Your task to perform on an android device: Open ESPN.com Image 0: 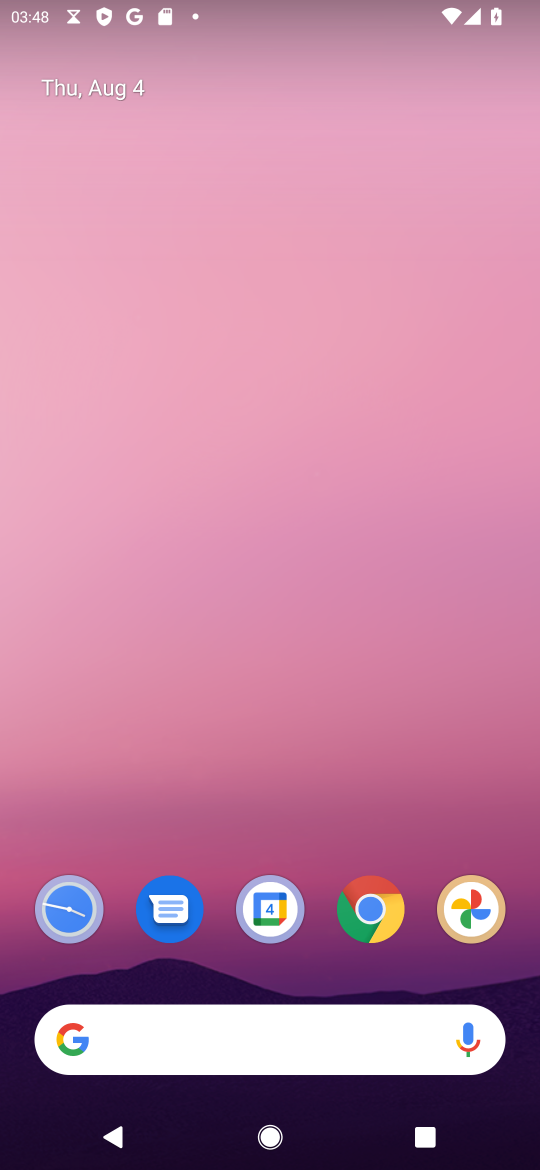
Step 0: click (374, 922)
Your task to perform on an android device: Open ESPN.com Image 1: 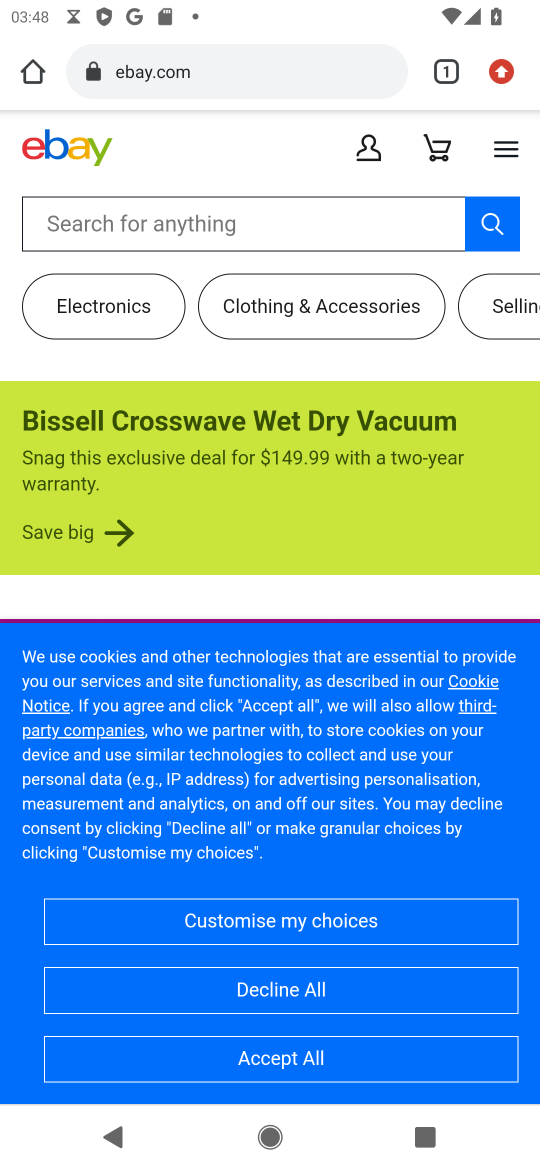
Step 1: drag from (493, 75) to (310, 219)
Your task to perform on an android device: Open ESPN.com Image 2: 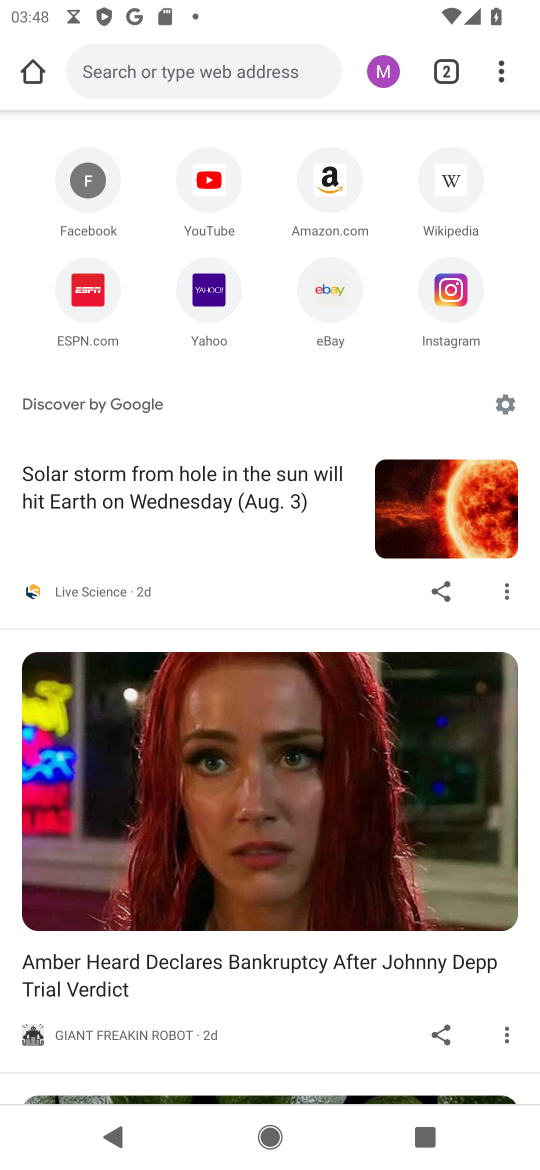
Step 2: click (93, 287)
Your task to perform on an android device: Open ESPN.com Image 3: 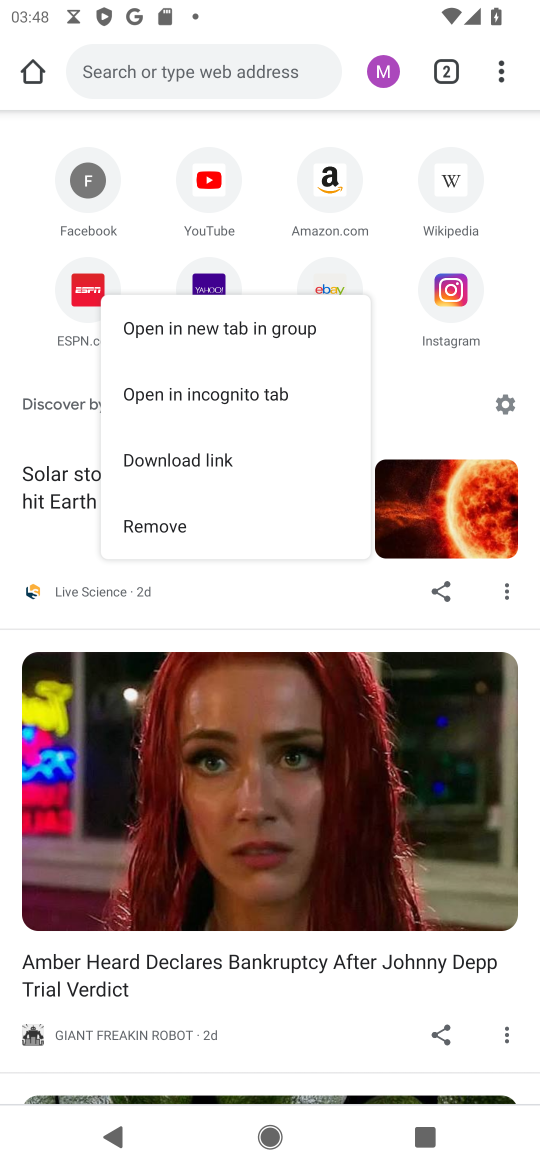
Step 3: click (81, 290)
Your task to perform on an android device: Open ESPN.com Image 4: 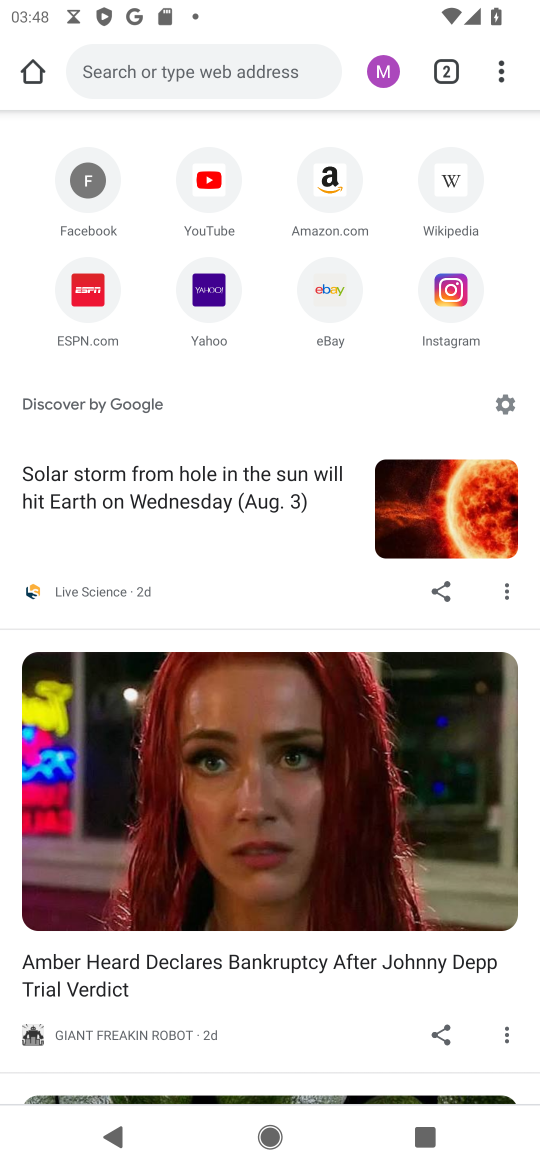
Step 4: click (97, 315)
Your task to perform on an android device: Open ESPN.com Image 5: 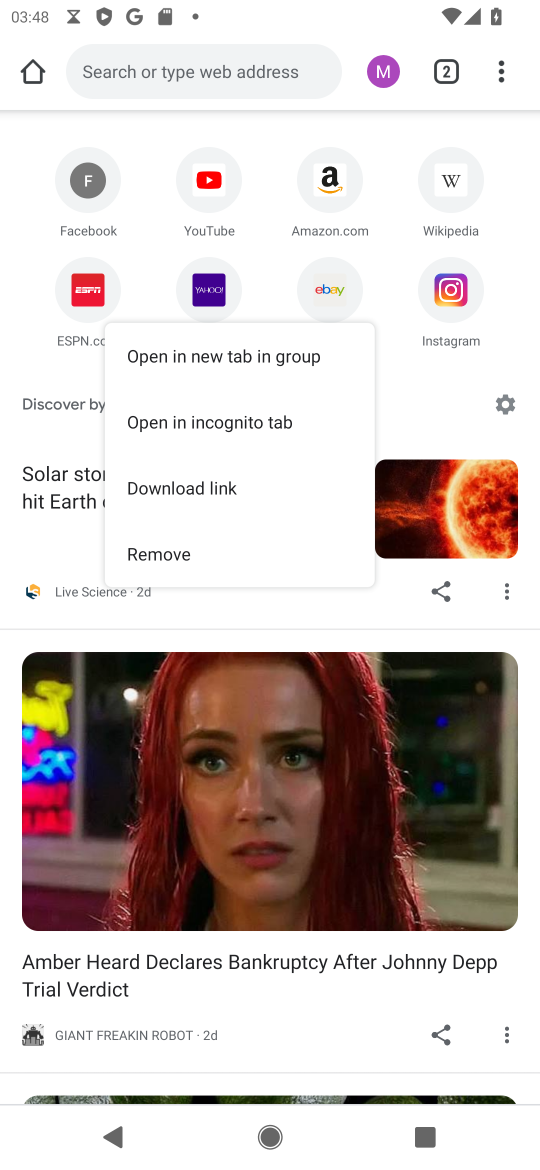
Step 5: click (82, 290)
Your task to perform on an android device: Open ESPN.com Image 6: 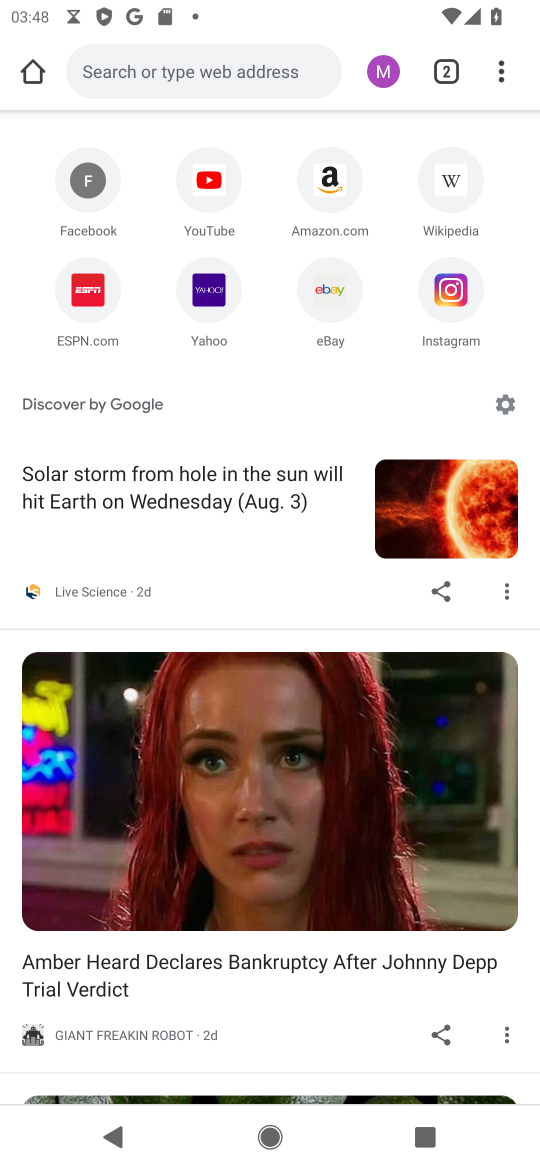
Step 6: click (95, 285)
Your task to perform on an android device: Open ESPN.com Image 7: 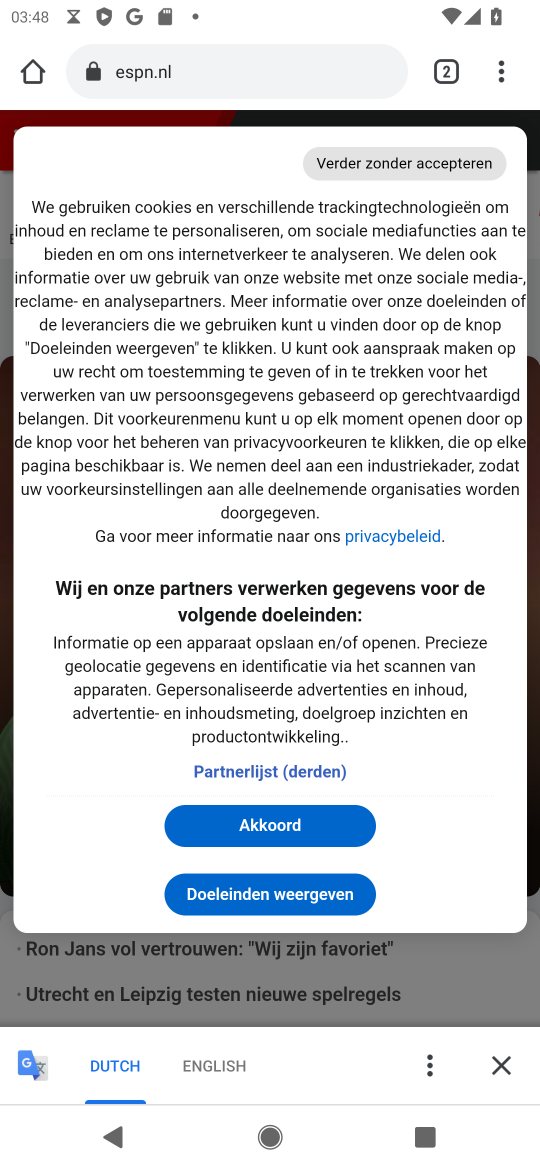
Step 7: click (187, 1065)
Your task to perform on an android device: Open ESPN.com Image 8: 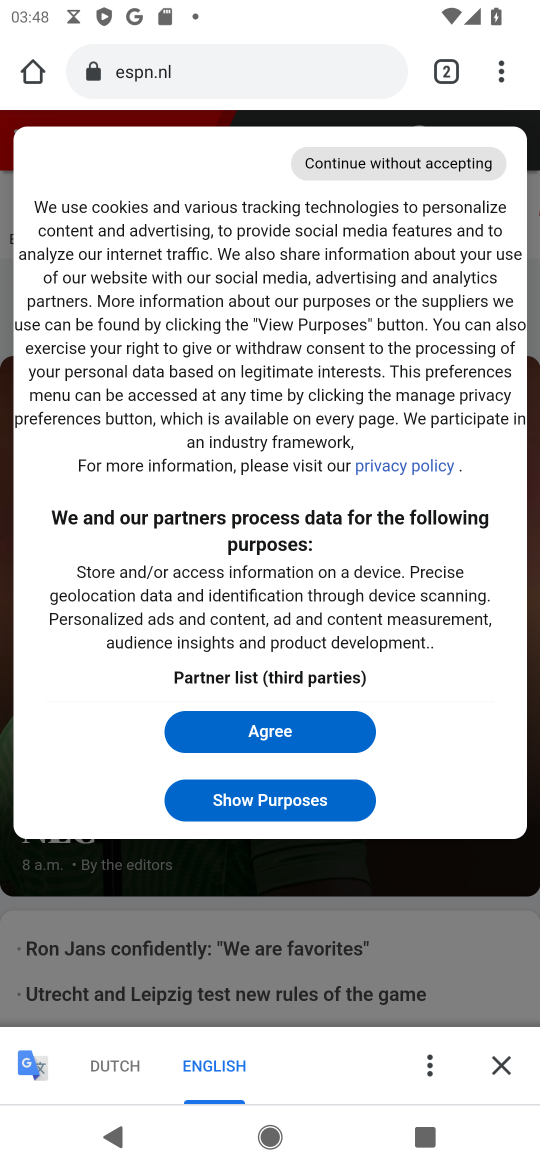
Step 8: task complete